Your task to perform on an android device: Show me productivity apps on the Play Store Image 0: 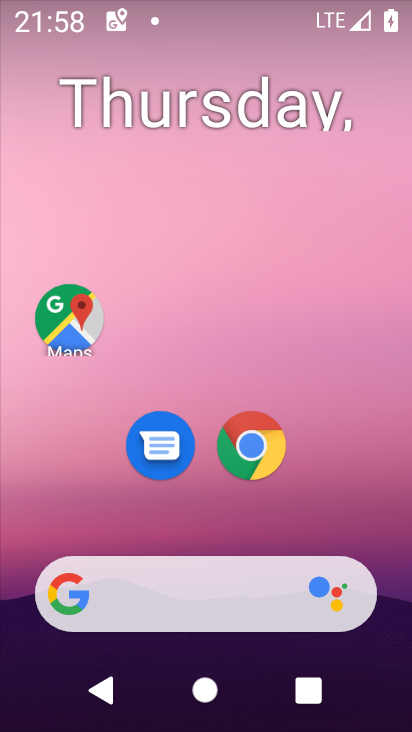
Step 0: drag from (224, 530) to (228, 159)
Your task to perform on an android device: Show me productivity apps on the Play Store Image 1: 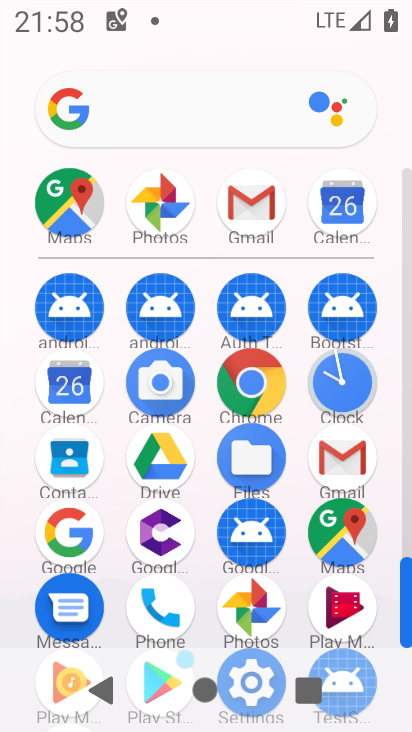
Step 1: drag from (207, 169) to (205, 78)
Your task to perform on an android device: Show me productivity apps on the Play Store Image 2: 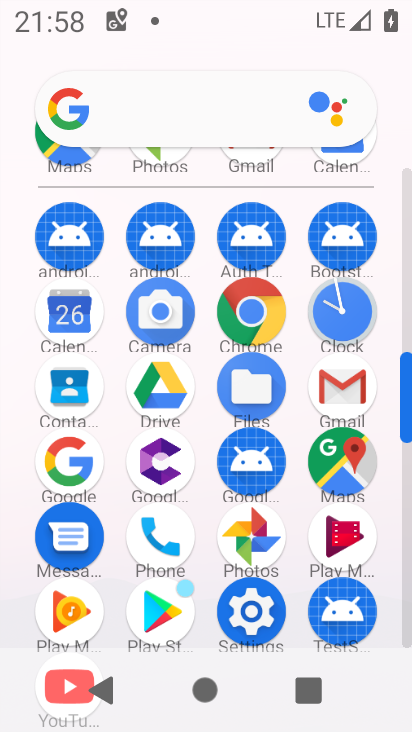
Step 2: click (154, 622)
Your task to perform on an android device: Show me productivity apps on the Play Store Image 3: 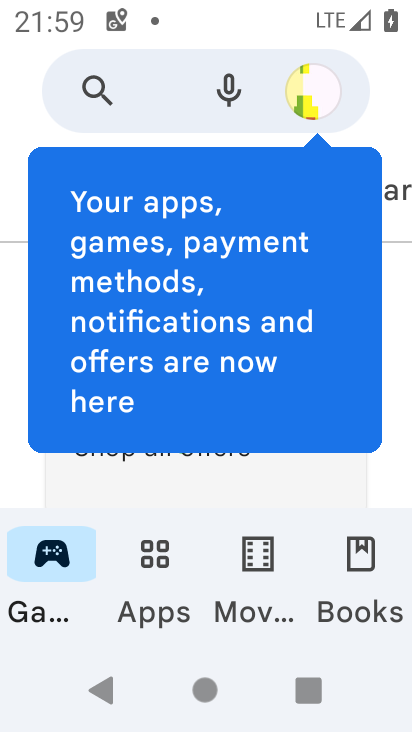
Step 3: click (205, 488)
Your task to perform on an android device: Show me productivity apps on the Play Store Image 4: 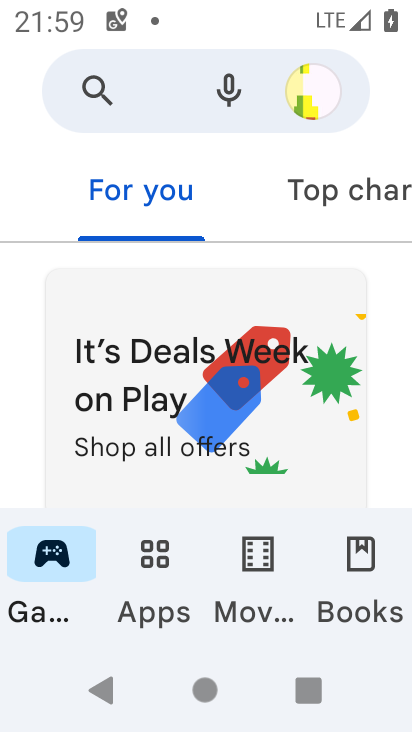
Step 4: click (147, 587)
Your task to perform on an android device: Show me productivity apps on the Play Store Image 5: 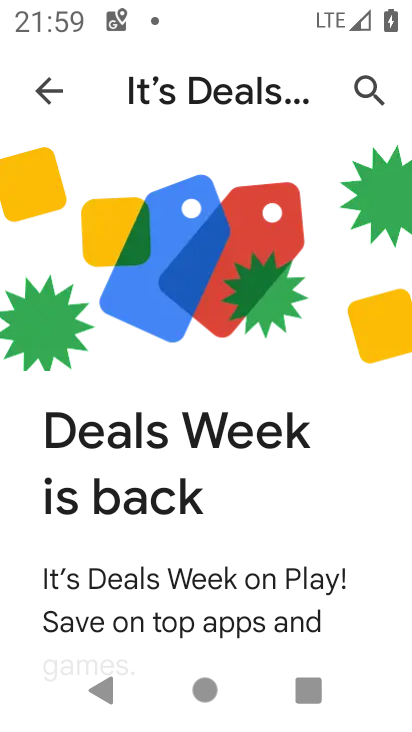
Step 5: drag from (160, 553) to (194, 211)
Your task to perform on an android device: Show me productivity apps on the Play Store Image 6: 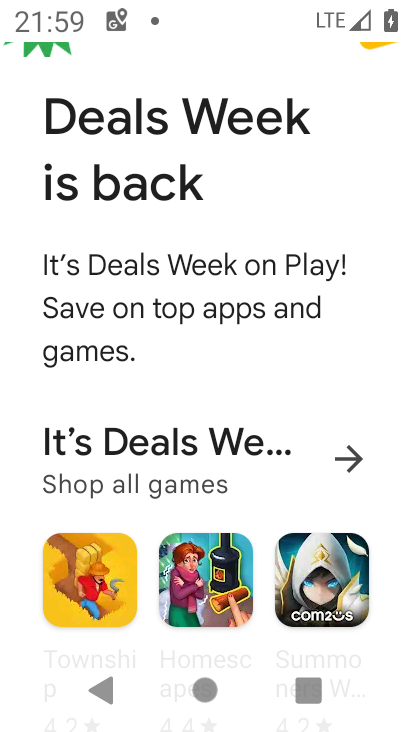
Step 6: press back button
Your task to perform on an android device: Show me productivity apps on the Play Store Image 7: 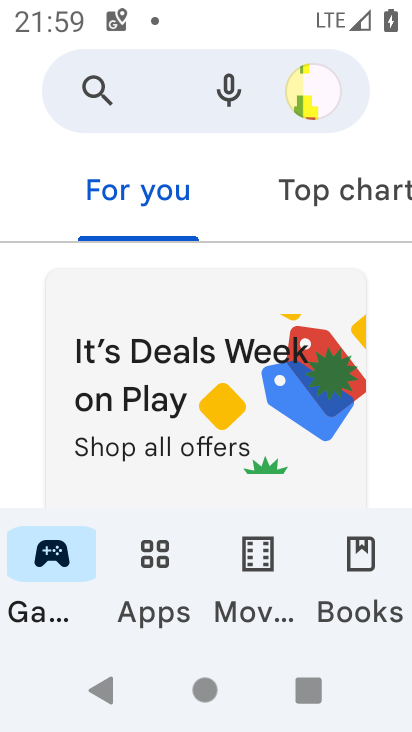
Step 7: drag from (330, 195) to (101, 217)
Your task to perform on an android device: Show me productivity apps on the Play Store Image 8: 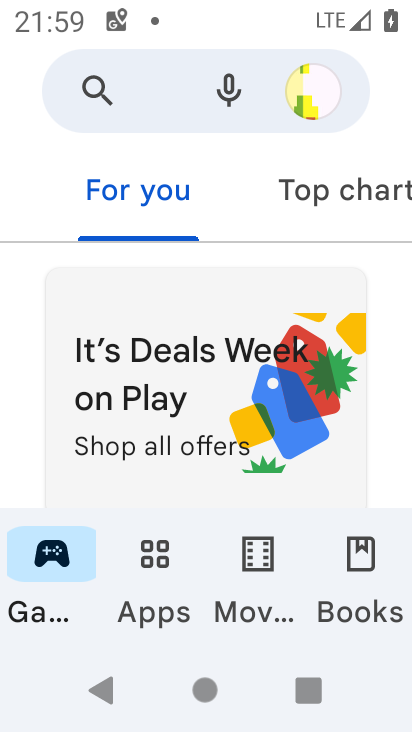
Step 8: click (168, 99)
Your task to perform on an android device: Show me productivity apps on the Play Store Image 9: 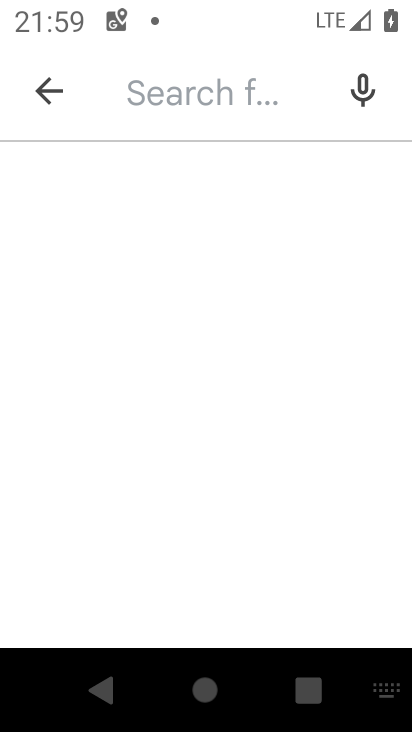
Step 9: type "productivity apps"
Your task to perform on an android device: Show me productivity apps on the Play Store Image 10: 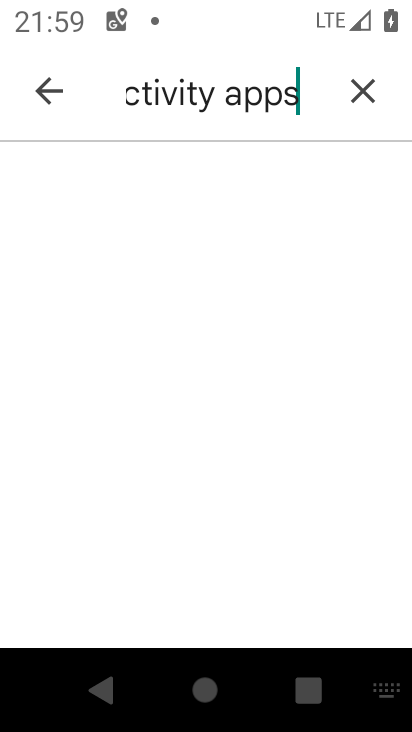
Step 10: type ""
Your task to perform on an android device: Show me productivity apps on the Play Store Image 11: 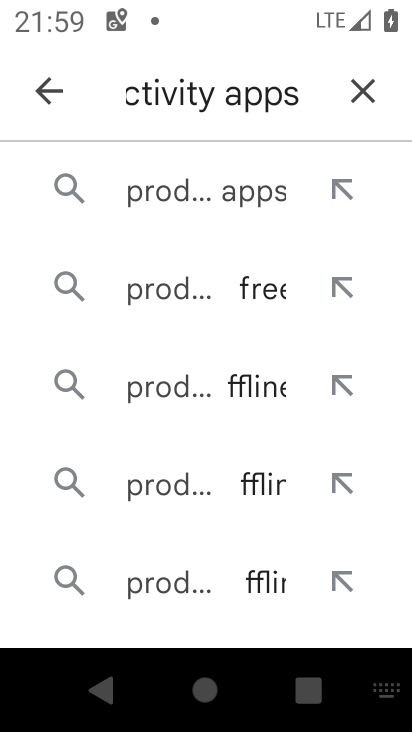
Step 11: click (228, 199)
Your task to perform on an android device: Show me productivity apps on the Play Store Image 12: 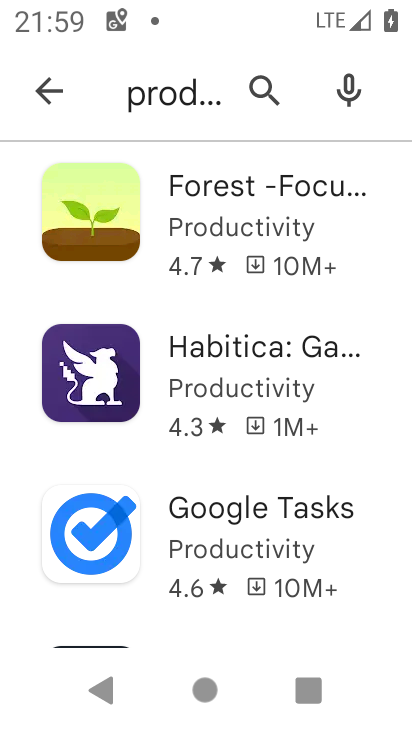
Step 12: task complete